Your task to perform on an android device: turn vacation reply on in the gmail app Image 0: 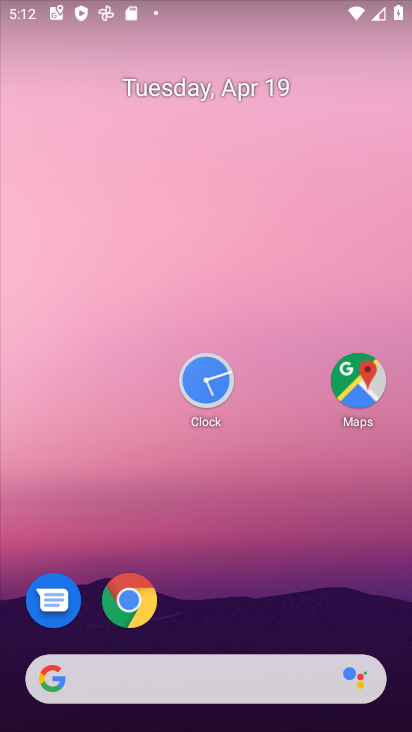
Step 0: drag from (176, 531) to (115, 168)
Your task to perform on an android device: turn vacation reply on in the gmail app Image 1: 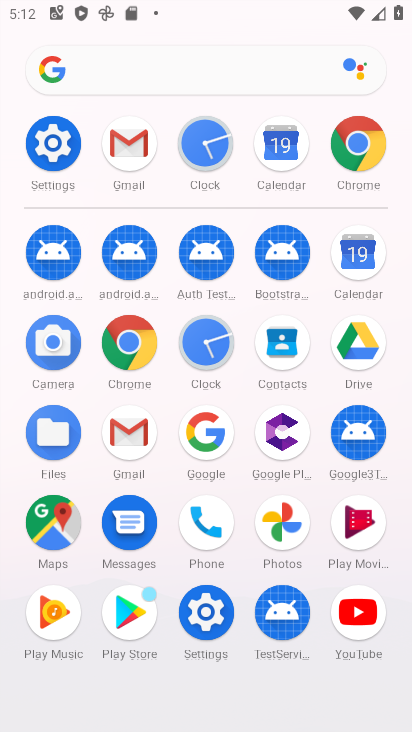
Step 1: click (126, 418)
Your task to perform on an android device: turn vacation reply on in the gmail app Image 2: 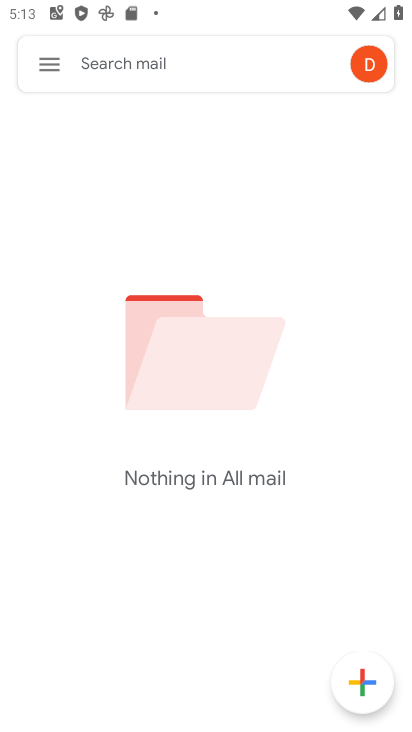
Step 2: click (52, 67)
Your task to perform on an android device: turn vacation reply on in the gmail app Image 3: 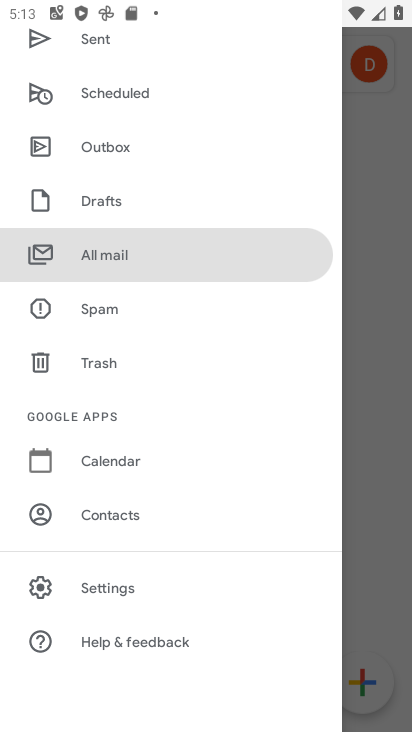
Step 3: click (125, 590)
Your task to perform on an android device: turn vacation reply on in the gmail app Image 4: 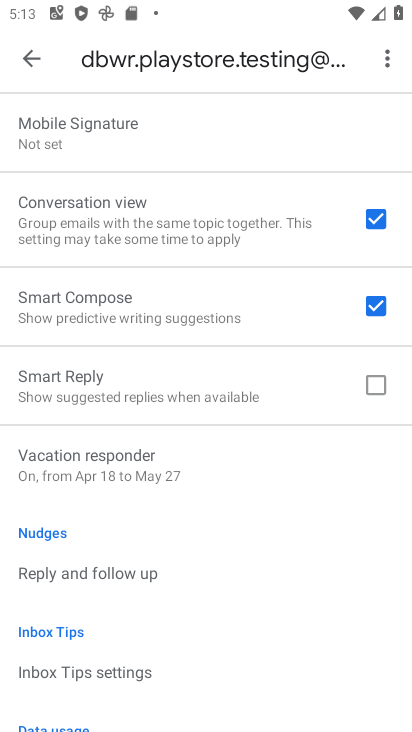
Step 4: click (80, 455)
Your task to perform on an android device: turn vacation reply on in the gmail app Image 5: 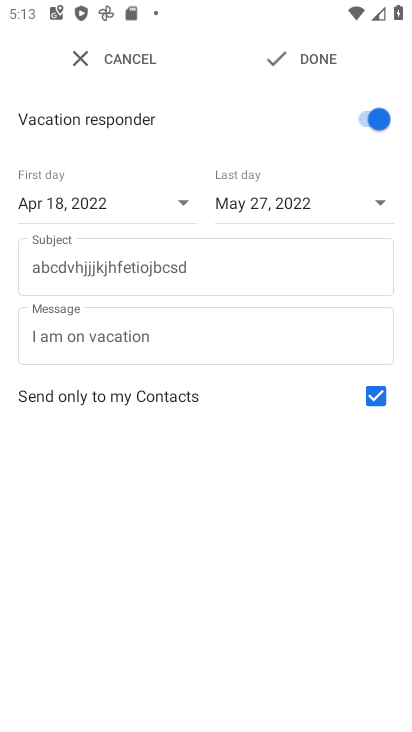
Step 5: task complete